Your task to perform on an android device: open chrome privacy settings Image 0: 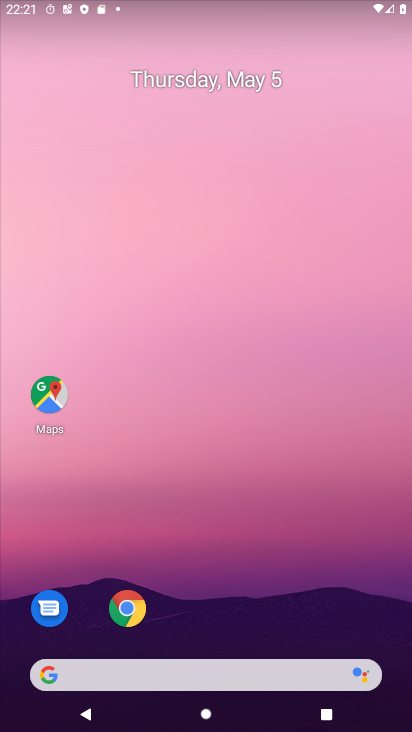
Step 0: drag from (309, 693) to (244, 2)
Your task to perform on an android device: open chrome privacy settings Image 1: 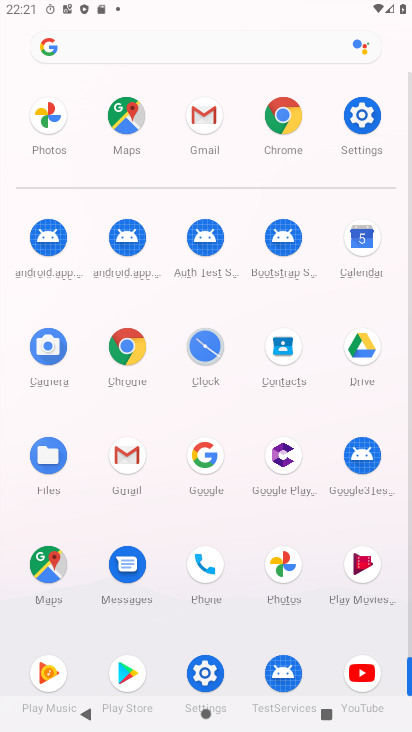
Step 1: click (368, 123)
Your task to perform on an android device: open chrome privacy settings Image 2: 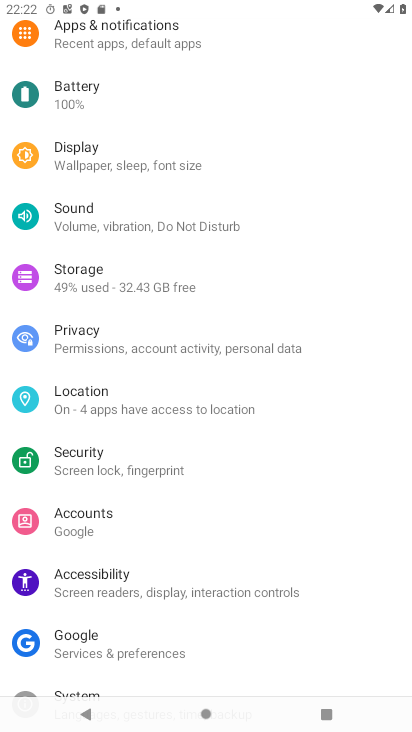
Step 2: drag from (151, 184) to (215, 619)
Your task to perform on an android device: open chrome privacy settings Image 3: 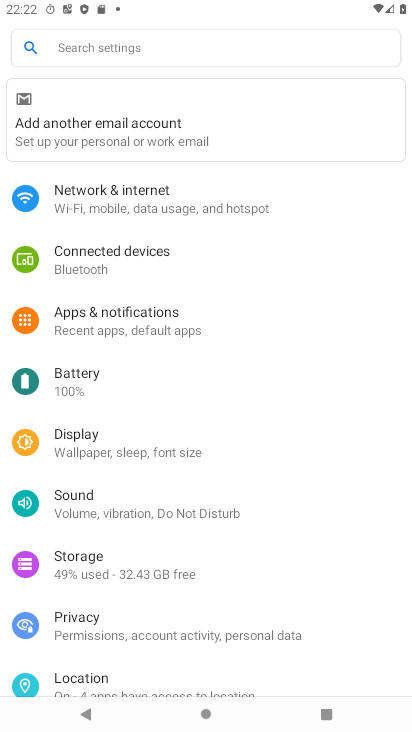
Step 3: press home button
Your task to perform on an android device: open chrome privacy settings Image 4: 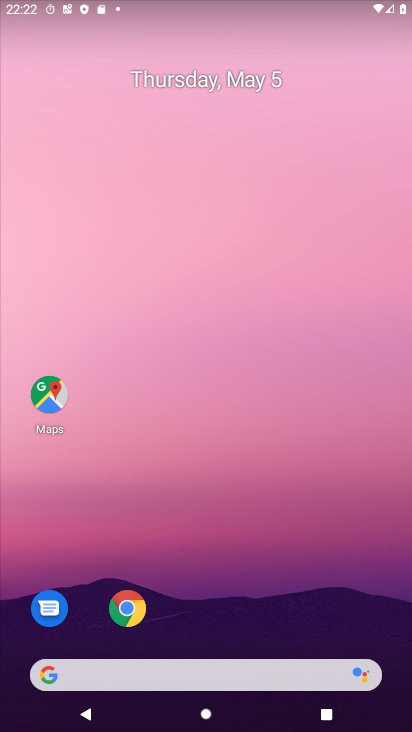
Step 4: drag from (212, 630) to (221, 14)
Your task to perform on an android device: open chrome privacy settings Image 5: 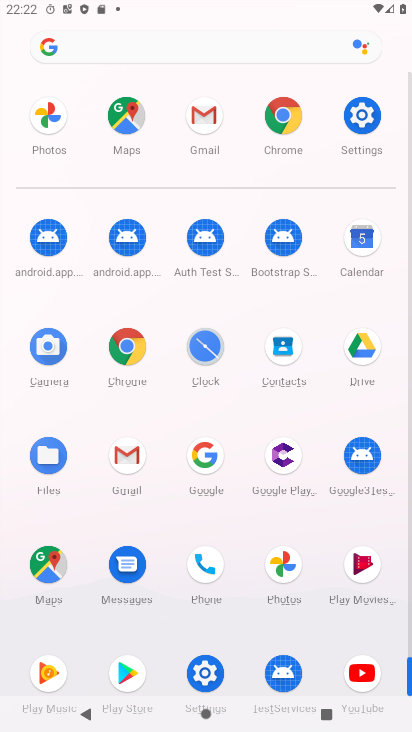
Step 5: click (126, 350)
Your task to perform on an android device: open chrome privacy settings Image 6: 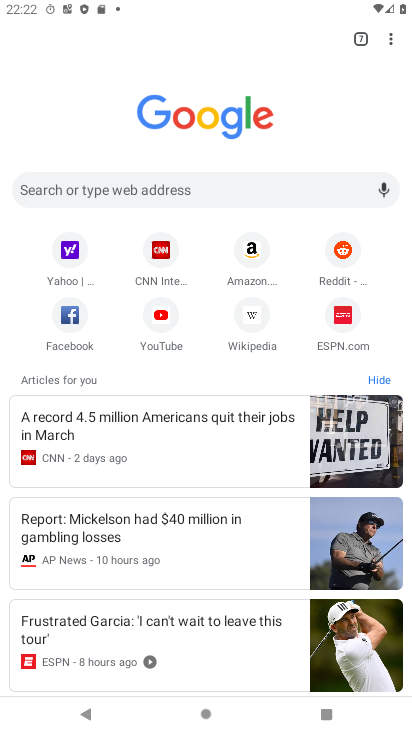
Step 6: click (389, 37)
Your task to perform on an android device: open chrome privacy settings Image 7: 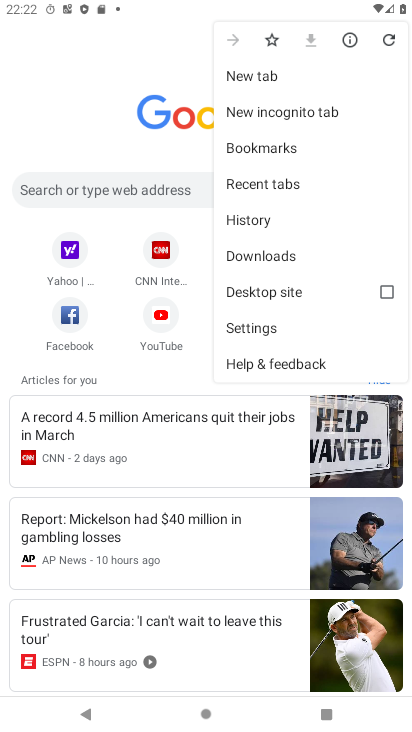
Step 7: click (275, 328)
Your task to perform on an android device: open chrome privacy settings Image 8: 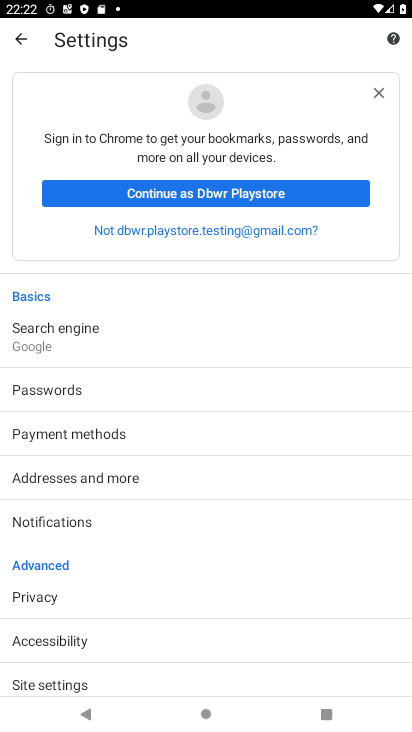
Step 8: click (67, 602)
Your task to perform on an android device: open chrome privacy settings Image 9: 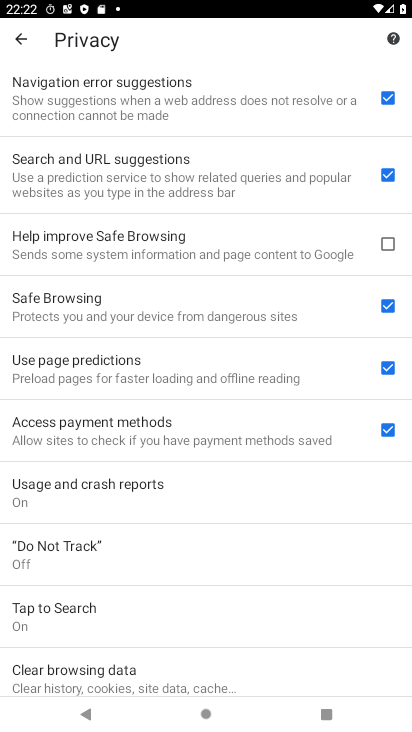
Step 9: task complete